Your task to perform on an android device: Clear the cart on amazon. Search for "duracell triple a" on amazon, select the first entry, add it to the cart, then select checkout. Image 0: 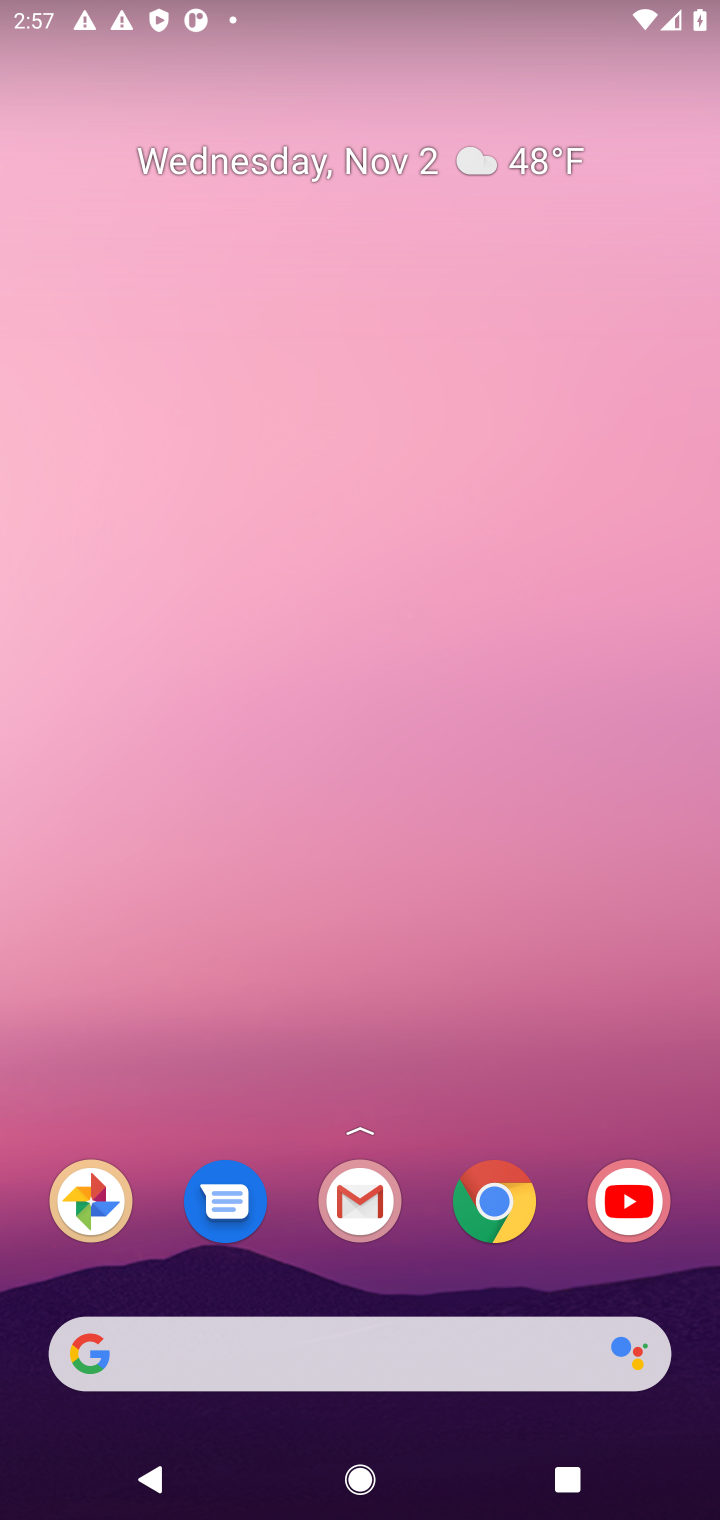
Step 0: click (507, 1206)
Your task to perform on an android device: Clear the cart on amazon. Search for "duracell triple a" on amazon, select the first entry, add it to the cart, then select checkout. Image 1: 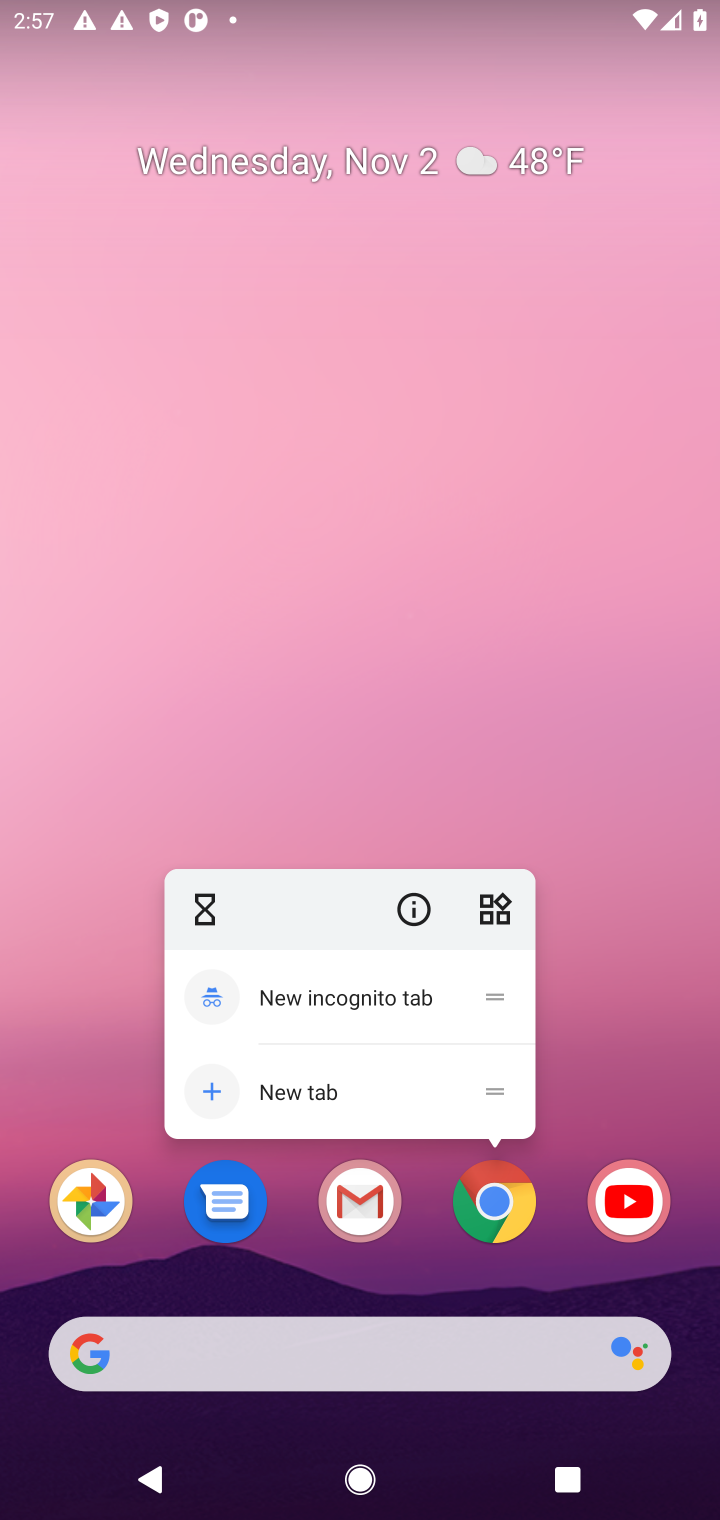
Step 1: click (519, 1201)
Your task to perform on an android device: Clear the cart on amazon. Search for "duracell triple a" on amazon, select the first entry, add it to the cart, then select checkout. Image 2: 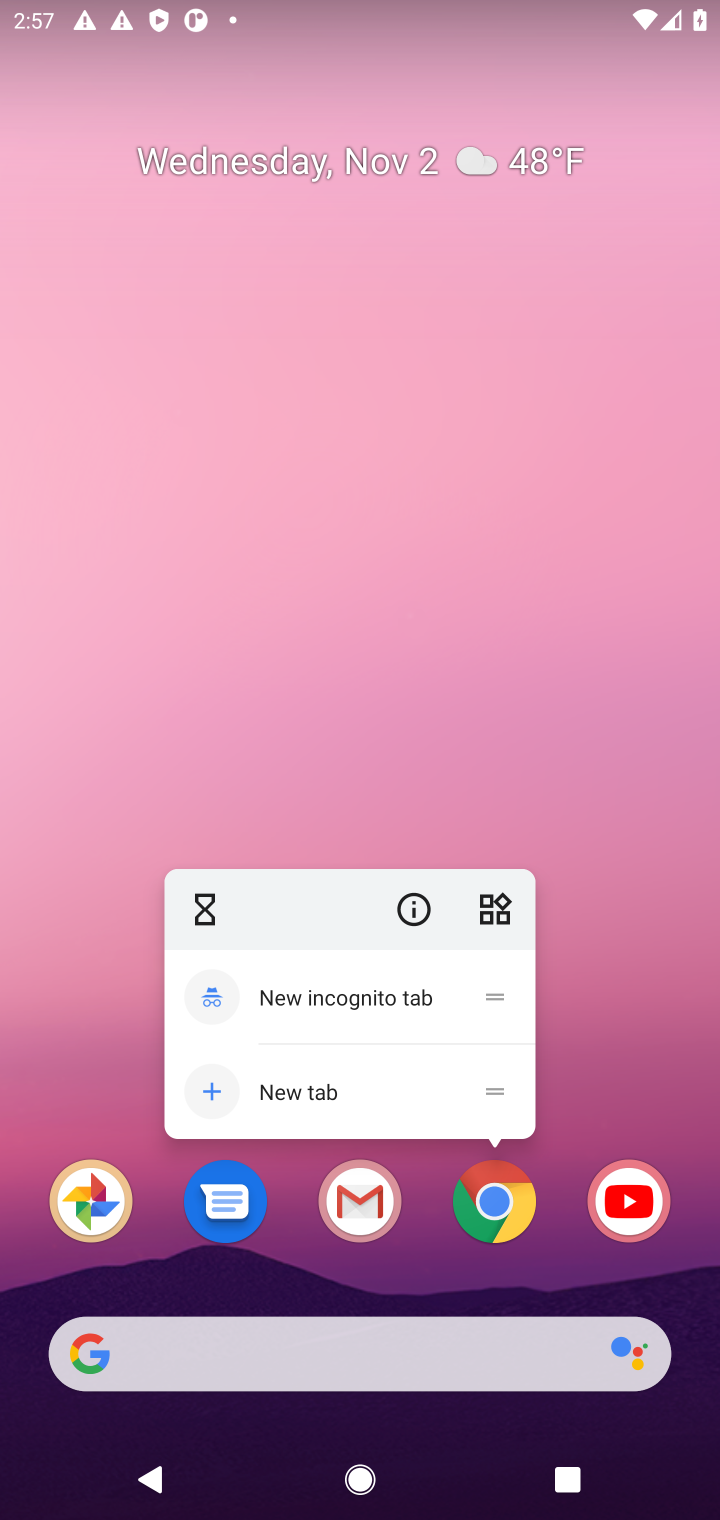
Step 2: click (528, 1201)
Your task to perform on an android device: Clear the cart on amazon. Search for "duracell triple a" on amazon, select the first entry, add it to the cart, then select checkout. Image 3: 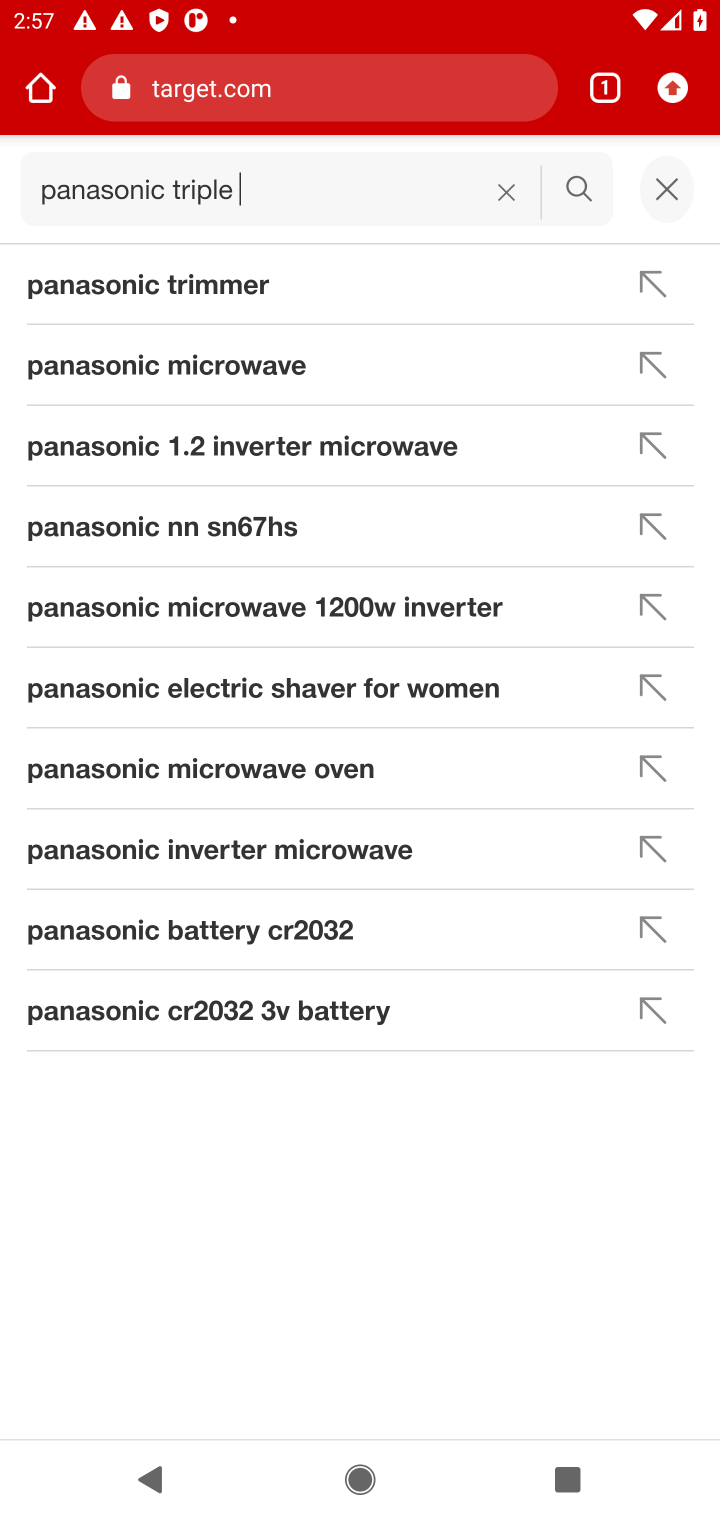
Step 3: click (36, 89)
Your task to perform on an android device: Clear the cart on amazon. Search for "duracell triple a" on amazon, select the first entry, add it to the cart, then select checkout. Image 4: 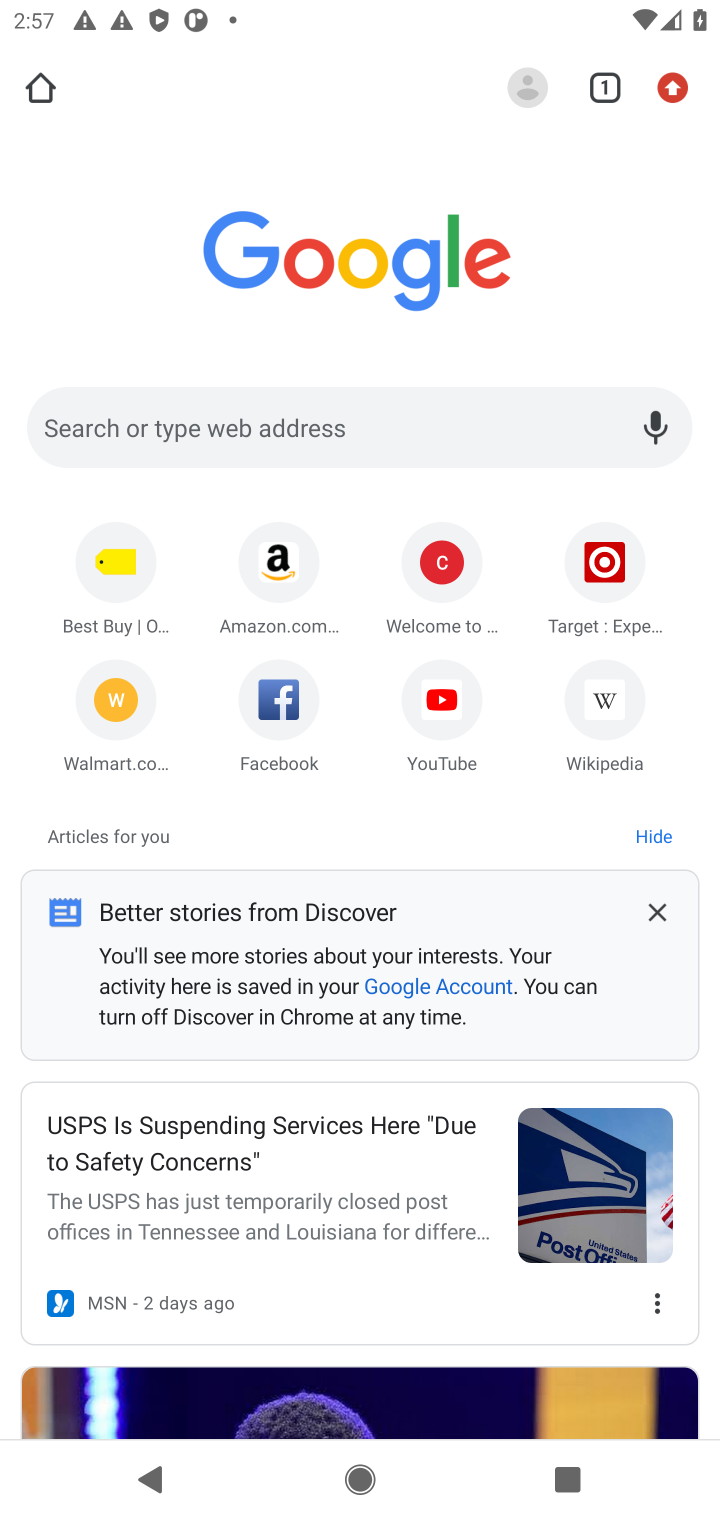
Step 4: click (447, 415)
Your task to perform on an android device: Clear the cart on amazon. Search for "duracell triple a" on amazon, select the first entry, add it to the cart, then select checkout. Image 5: 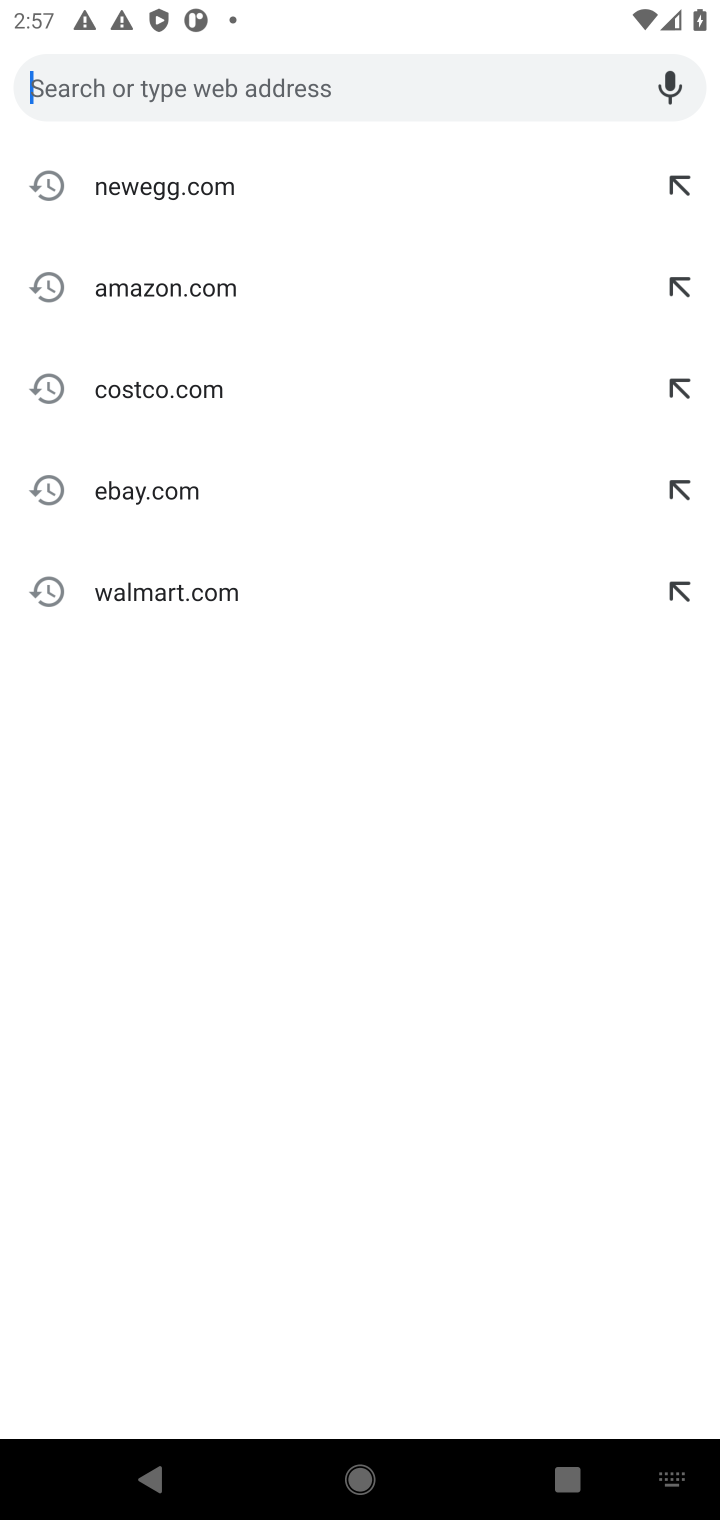
Step 5: click (199, 289)
Your task to perform on an android device: Clear the cart on amazon. Search for "duracell triple a" on amazon, select the first entry, add it to the cart, then select checkout. Image 6: 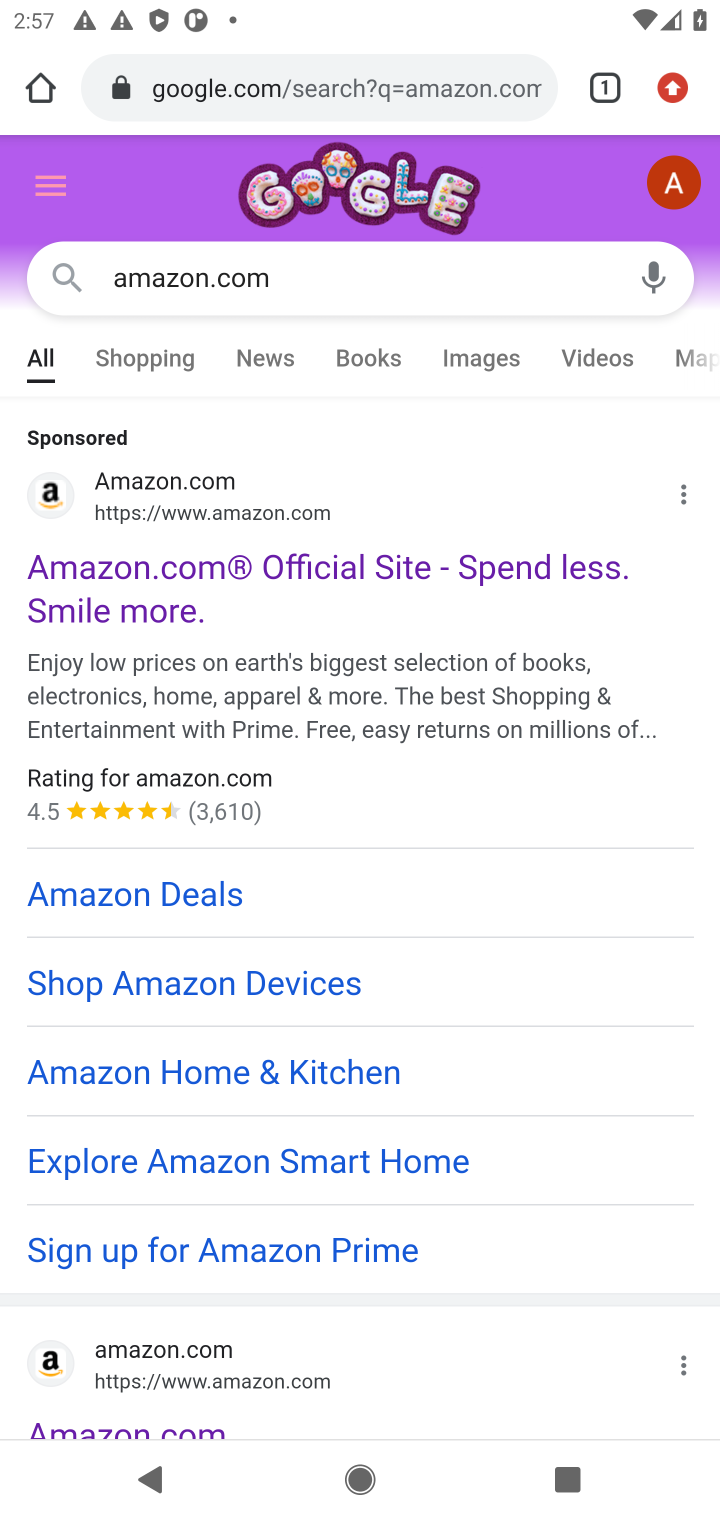
Step 6: click (198, 510)
Your task to perform on an android device: Clear the cart on amazon. Search for "duracell triple a" on amazon, select the first entry, add it to the cart, then select checkout. Image 7: 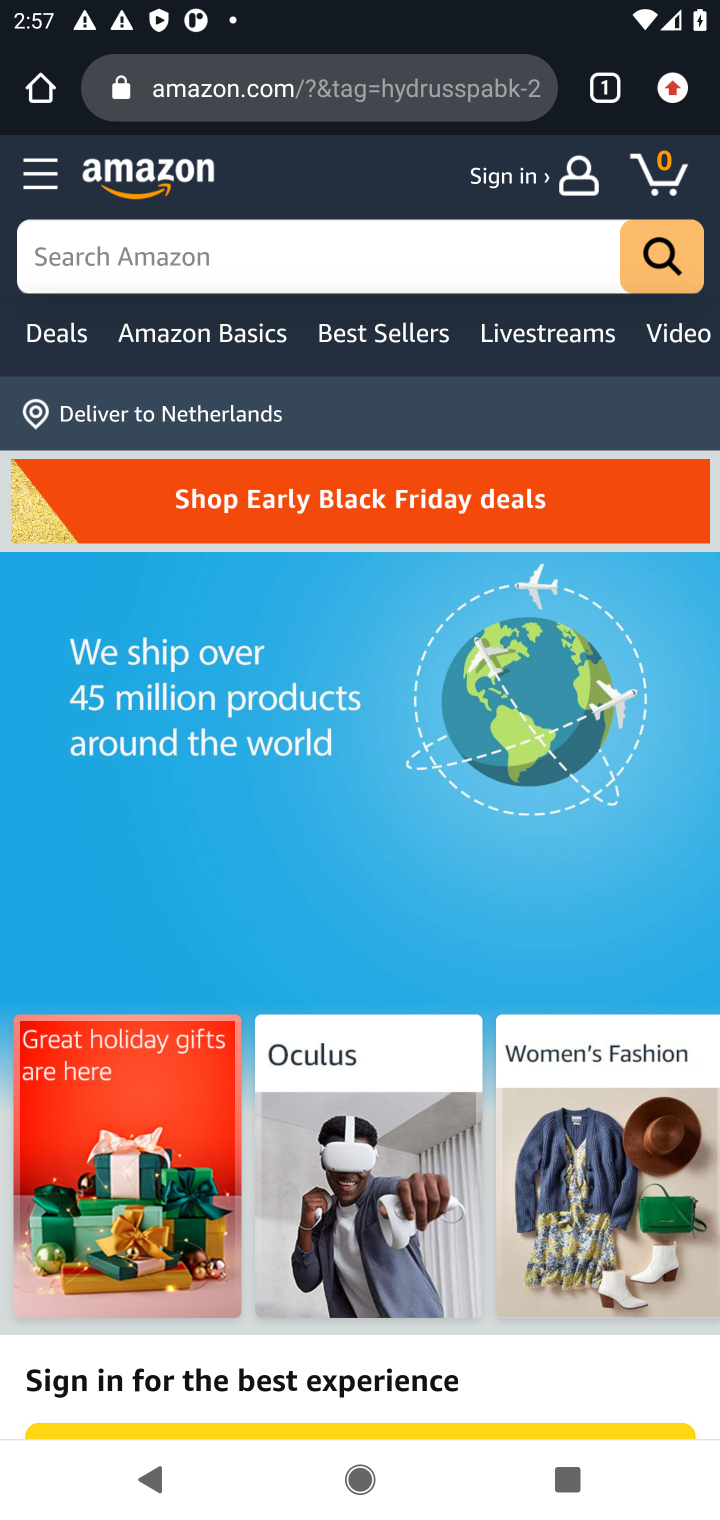
Step 7: click (652, 155)
Your task to perform on an android device: Clear the cart on amazon. Search for "duracell triple a" on amazon, select the first entry, add it to the cart, then select checkout. Image 8: 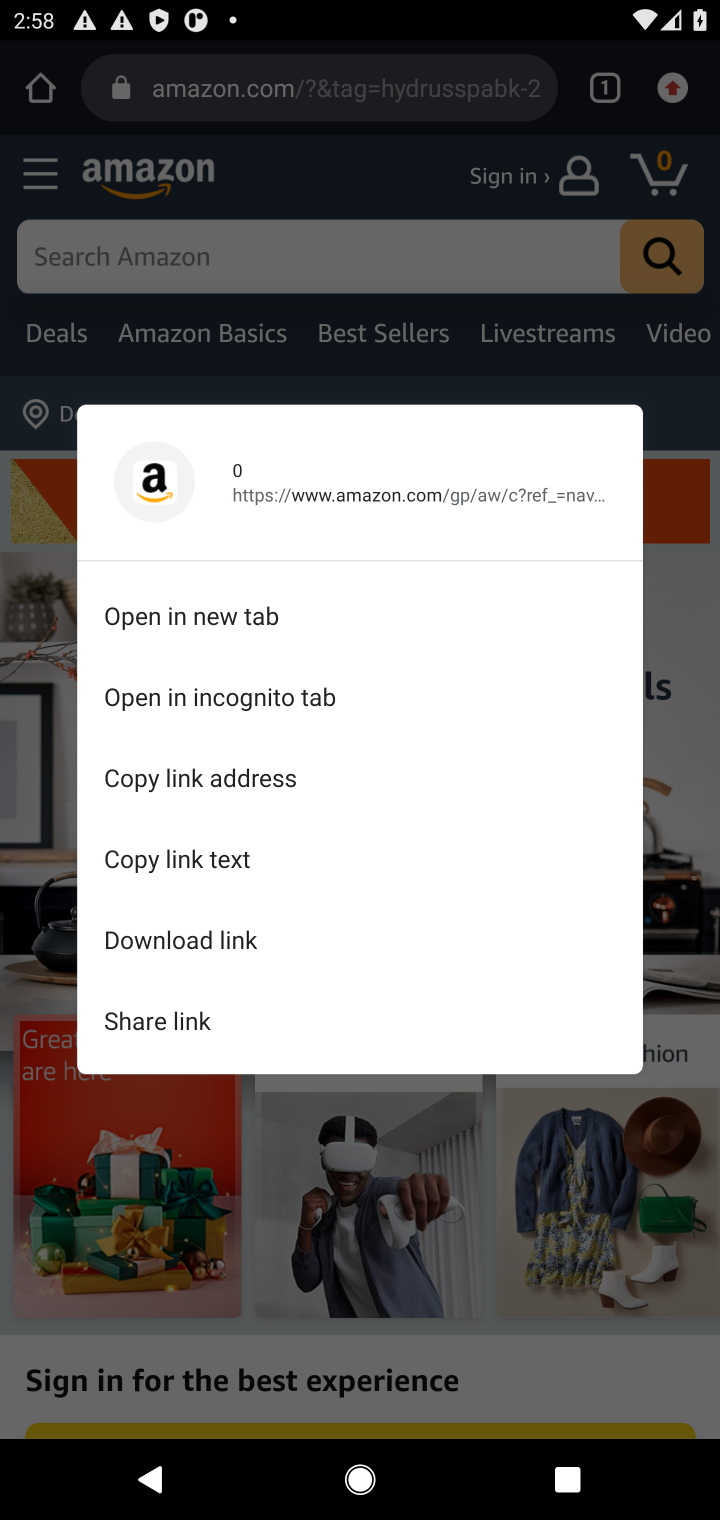
Step 8: click (500, 248)
Your task to perform on an android device: Clear the cart on amazon. Search for "duracell triple a" on amazon, select the first entry, add it to the cart, then select checkout. Image 9: 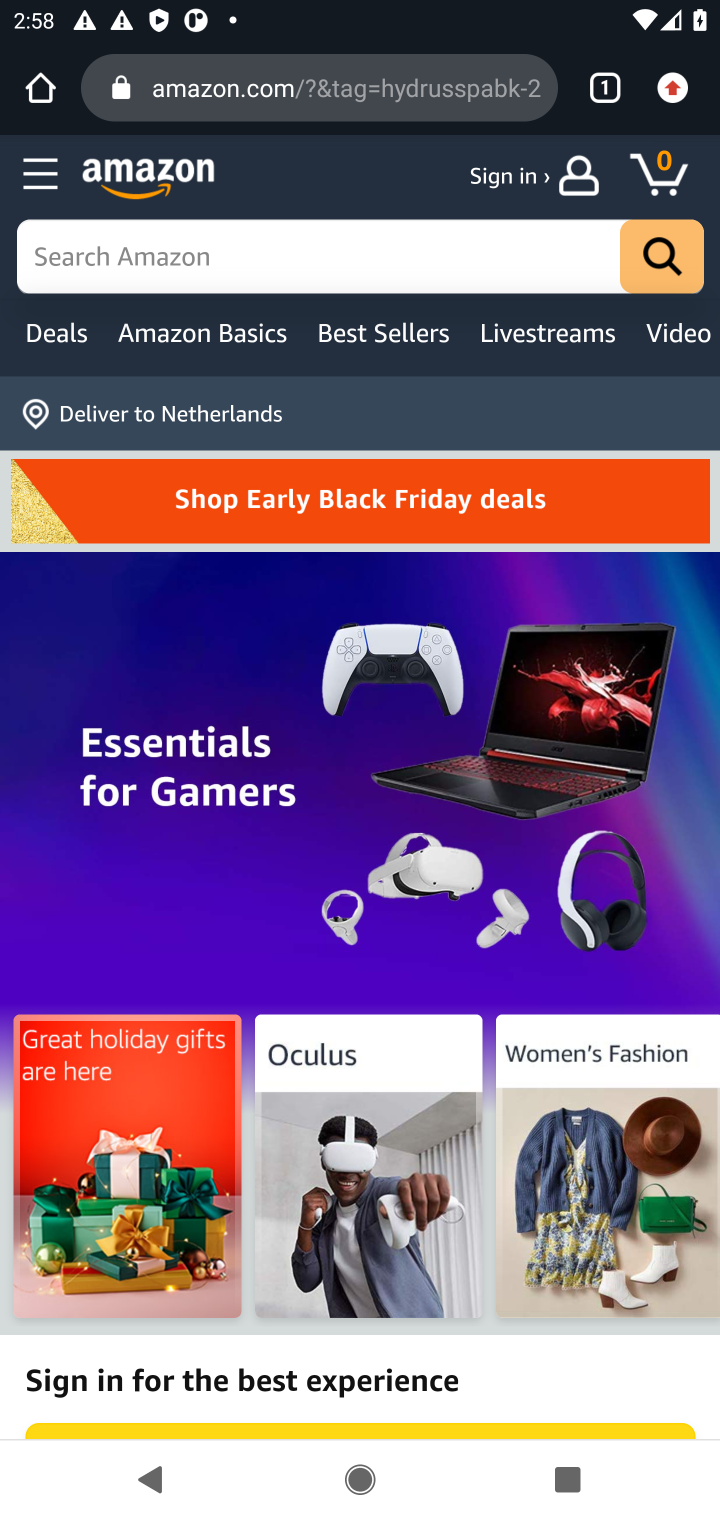
Step 9: click (346, 257)
Your task to perform on an android device: Clear the cart on amazon. Search for "duracell triple a" on amazon, select the first entry, add it to the cart, then select checkout. Image 10: 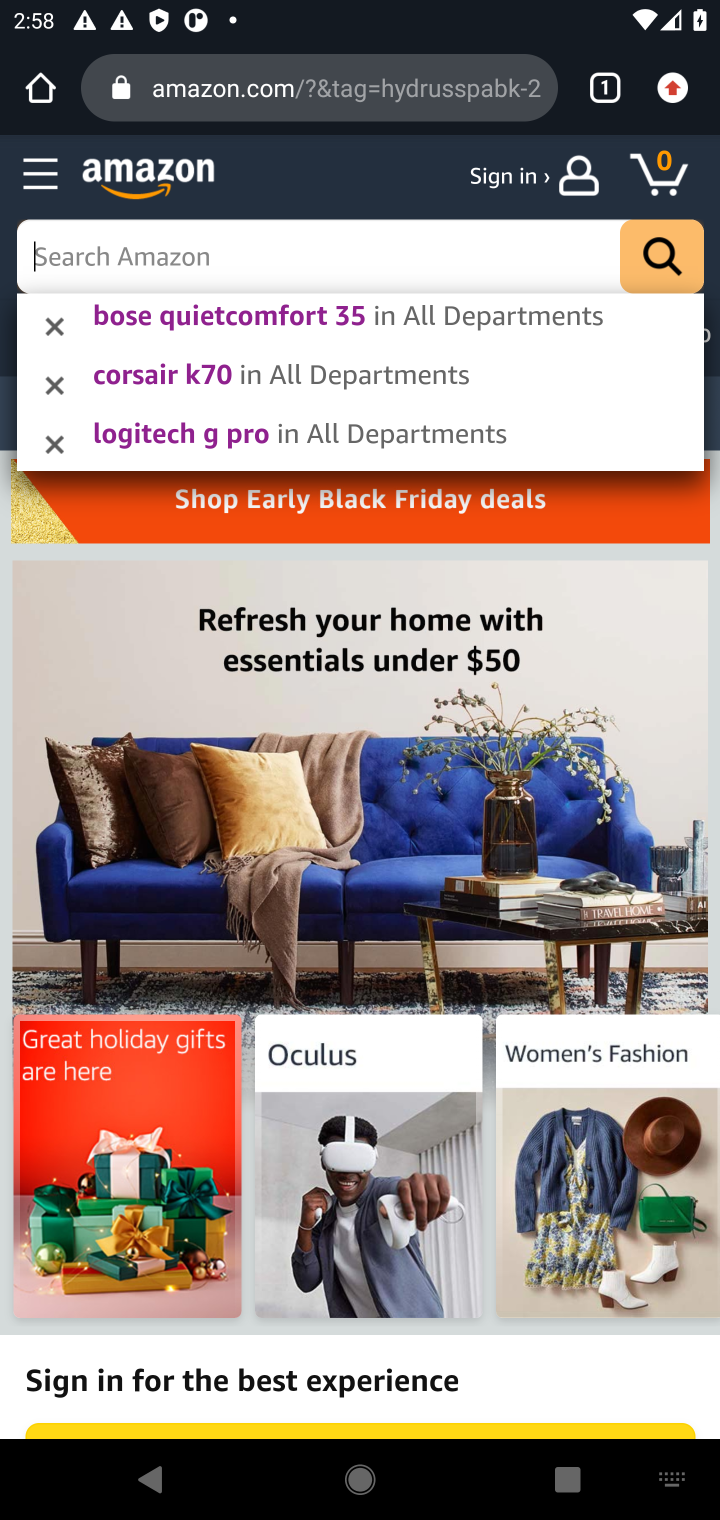
Step 10: type "duracell triple a"
Your task to perform on an android device: Clear the cart on amazon. Search for "duracell triple a" on amazon, select the first entry, add it to the cart, then select checkout. Image 11: 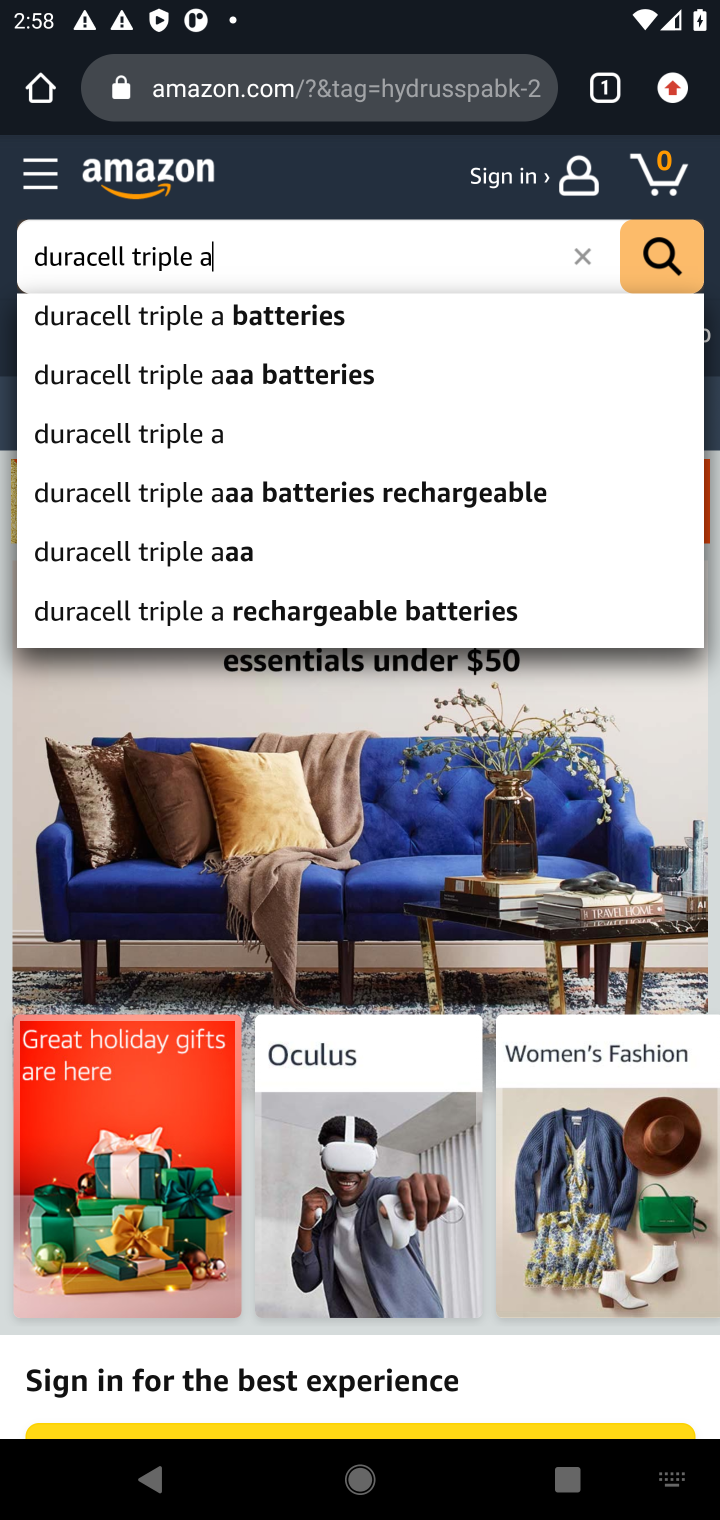
Step 11: click (170, 427)
Your task to perform on an android device: Clear the cart on amazon. Search for "duracell triple a" on amazon, select the first entry, add it to the cart, then select checkout. Image 12: 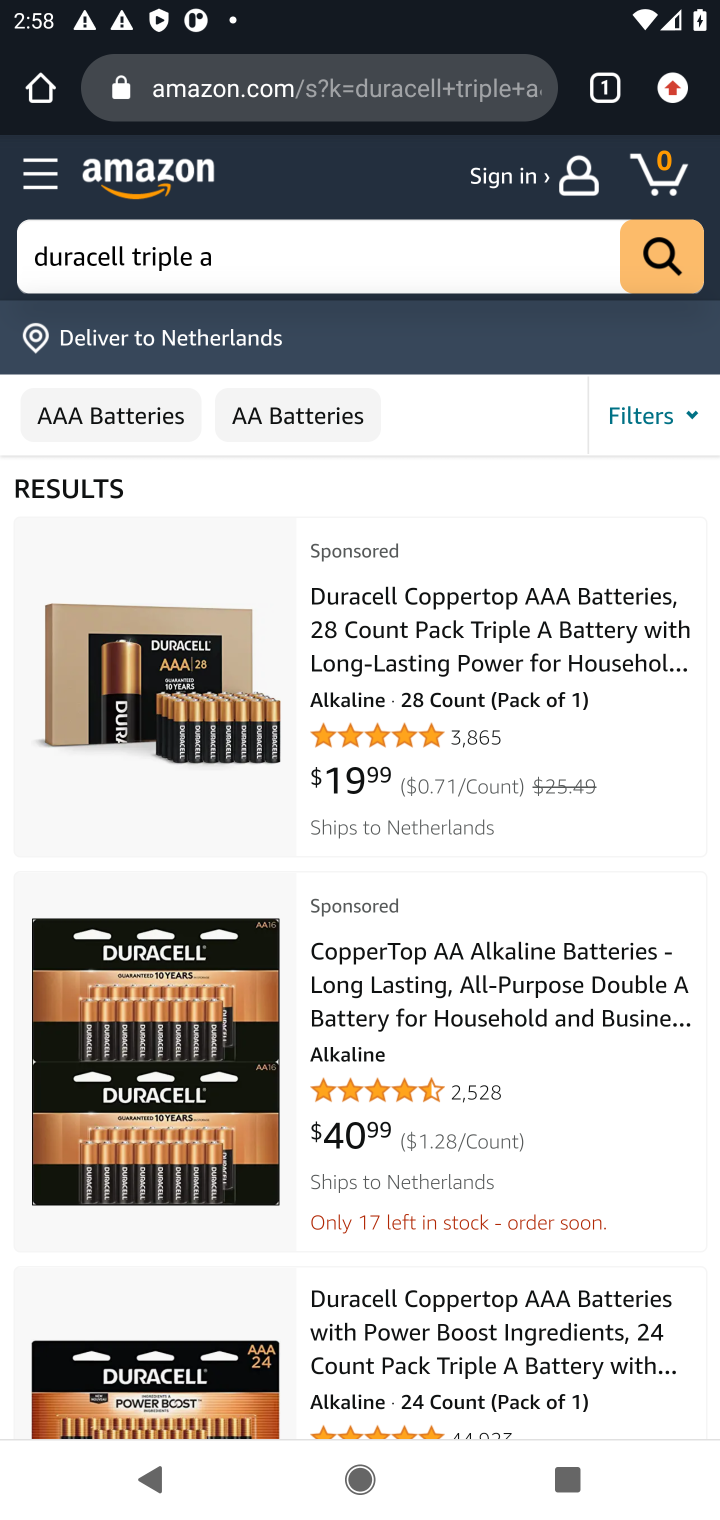
Step 12: click (161, 1358)
Your task to perform on an android device: Clear the cart on amazon. Search for "duracell triple a" on amazon, select the first entry, add it to the cart, then select checkout. Image 13: 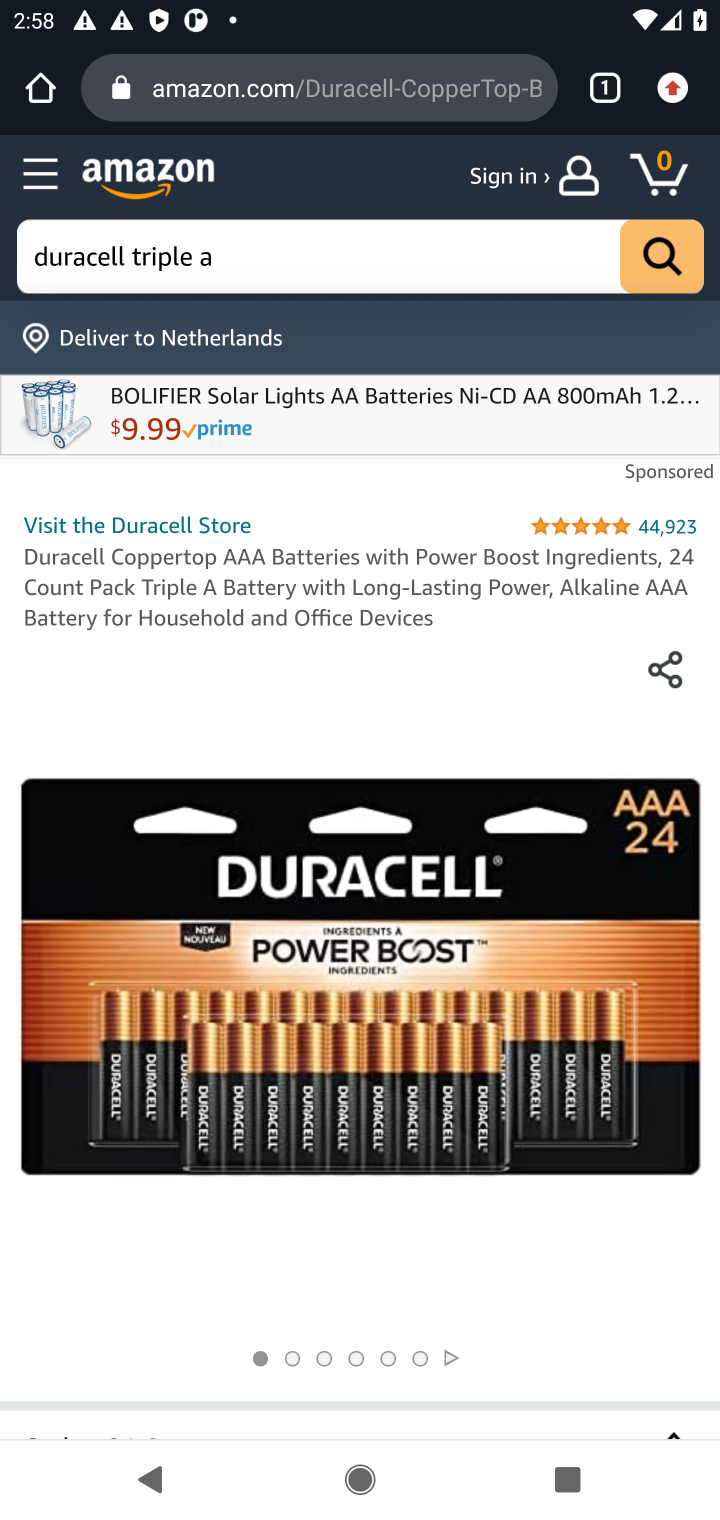
Step 13: drag from (339, 1149) to (405, 528)
Your task to perform on an android device: Clear the cart on amazon. Search for "duracell triple a" on amazon, select the first entry, add it to the cart, then select checkout. Image 14: 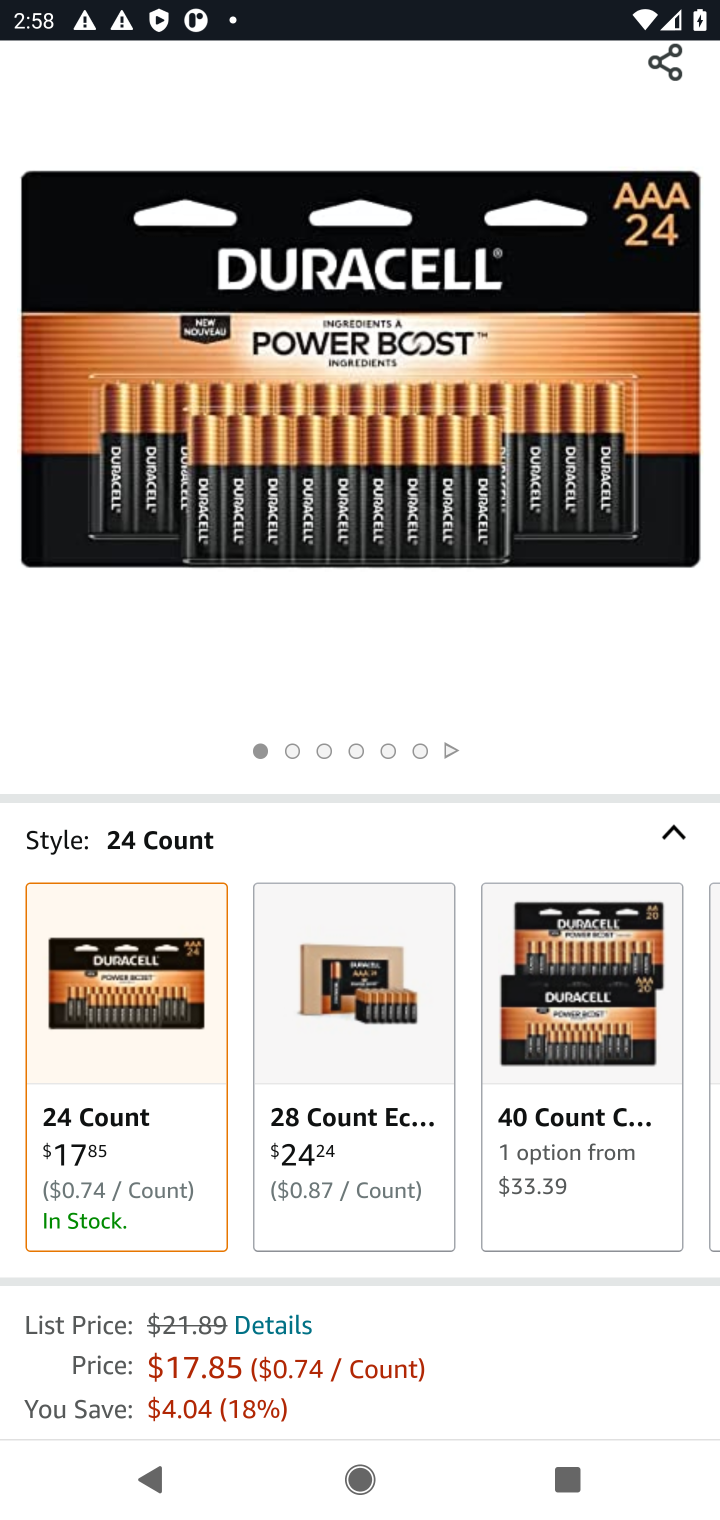
Step 14: drag from (425, 1153) to (474, 592)
Your task to perform on an android device: Clear the cart on amazon. Search for "duracell triple a" on amazon, select the first entry, add it to the cart, then select checkout. Image 15: 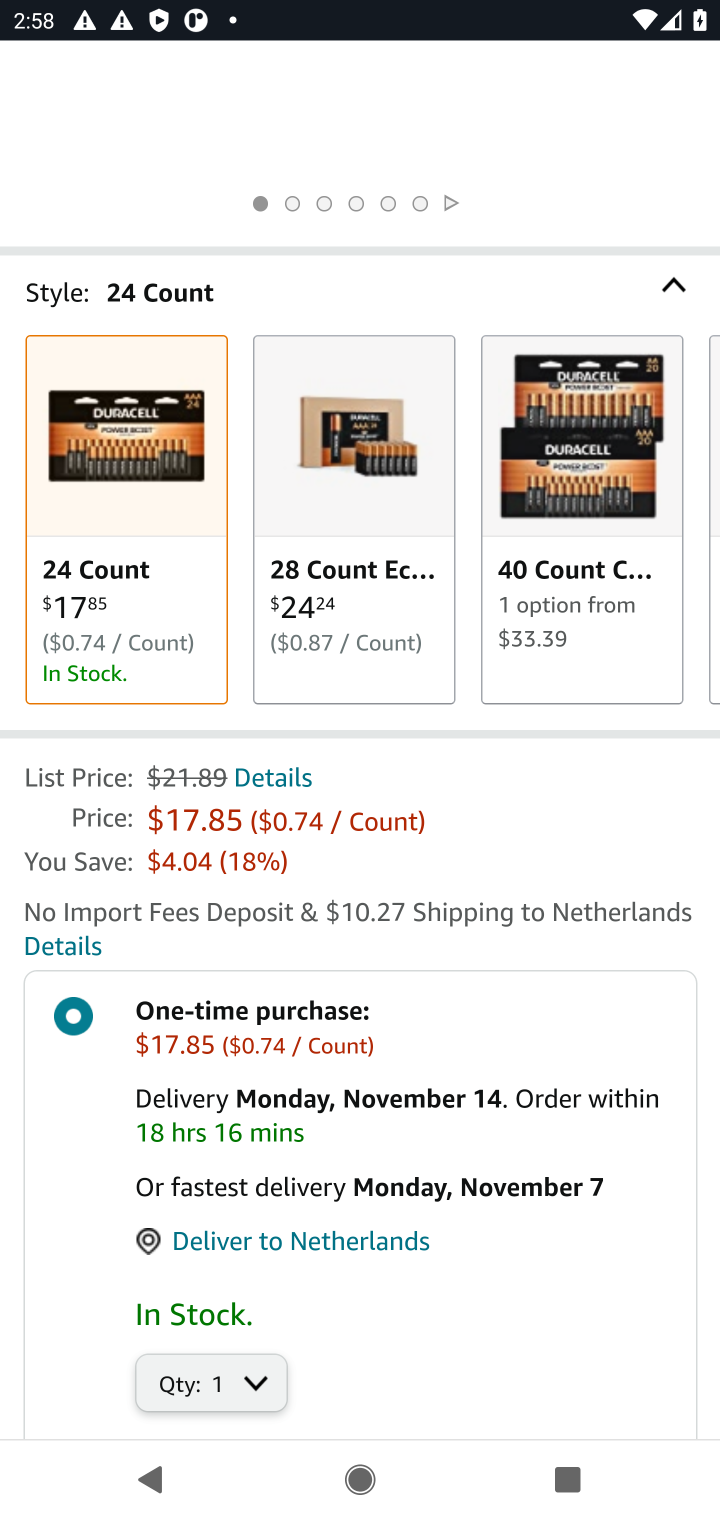
Step 15: drag from (440, 1194) to (397, 652)
Your task to perform on an android device: Clear the cart on amazon. Search for "duracell triple a" on amazon, select the first entry, add it to the cart, then select checkout. Image 16: 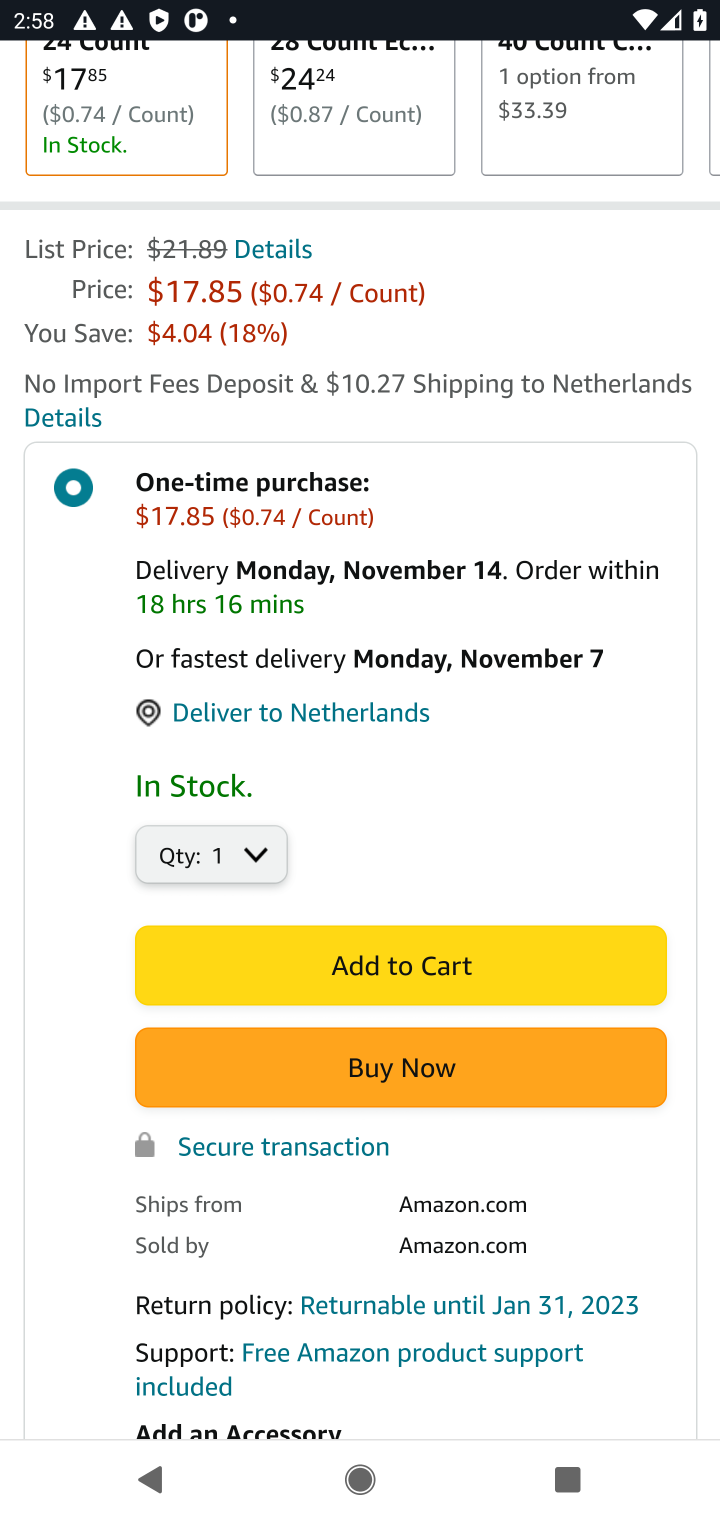
Step 16: click (440, 975)
Your task to perform on an android device: Clear the cart on amazon. Search for "duracell triple a" on amazon, select the first entry, add it to the cart, then select checkout. Image 17: 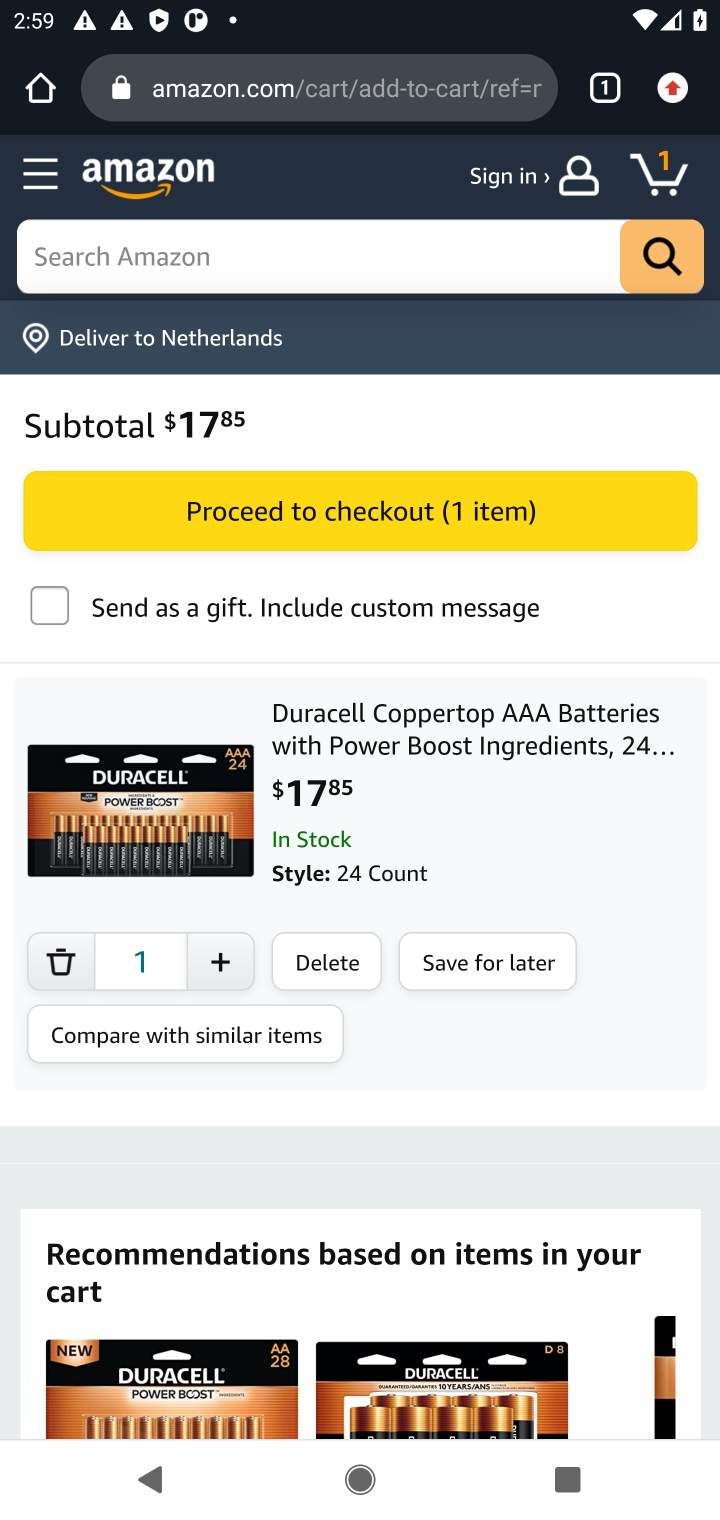
Step 17: click (403, 495)
Your task to perform on an android device: Clear the cart on amazon. Search for "duracell triple a" on amazon, select the first entry, add it to the cart, then select checkout. Image 18: 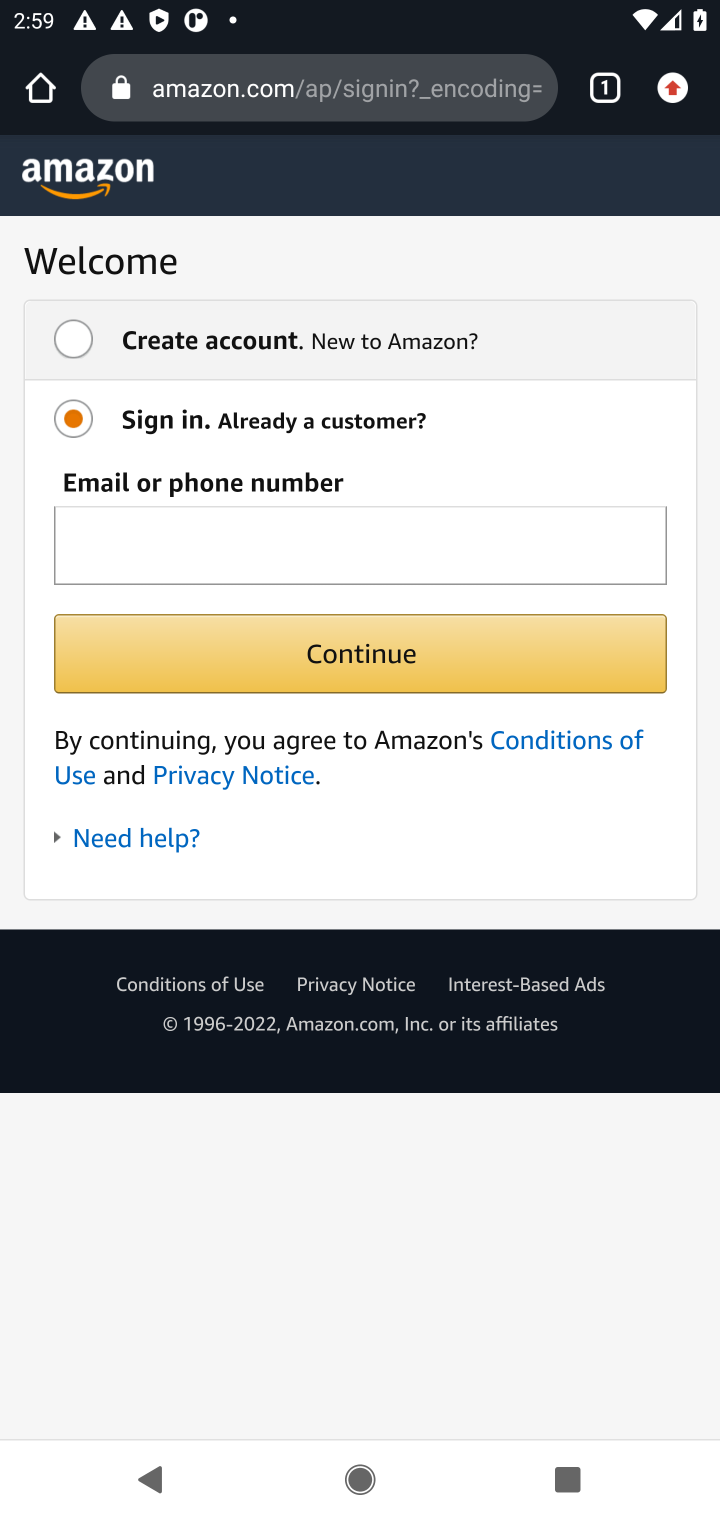
Step 18: task complete